Your task to perform on an android device: Open Maps and search for coffee Image 0: 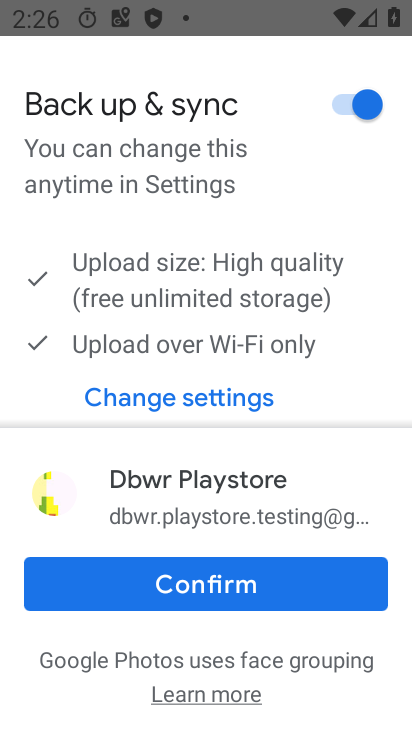
Step 0: press home button
Your task to perform on an android device: Open Maps and search for coffee Image 1: 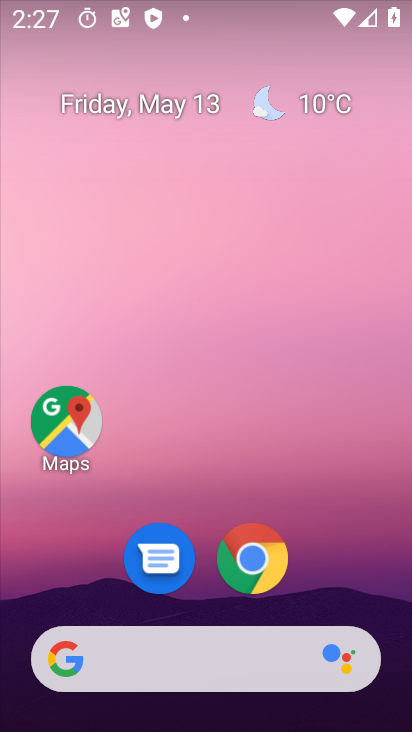
Step 1: click (38, 423)
Your task to perform on an android device: Open Maps and search for coffee Image 2: 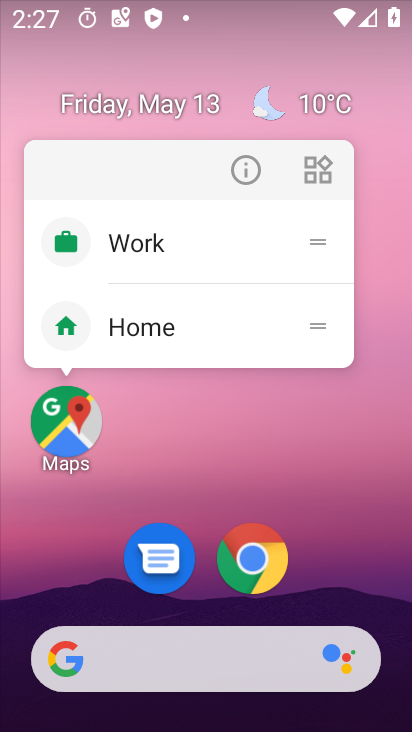
Step 2: click (85, 402)
Your task to perform on an android device: Open Maps and search for coffee Image 3: 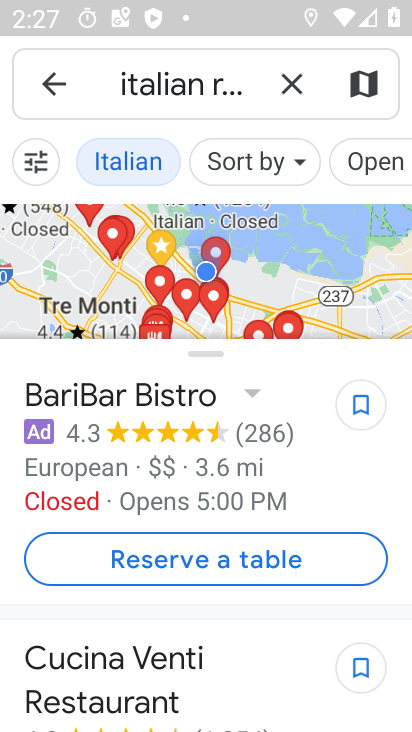
Step 3: click (289, 92)
Your task to perform on an android device: Open Maps and search for coffee Image 4: 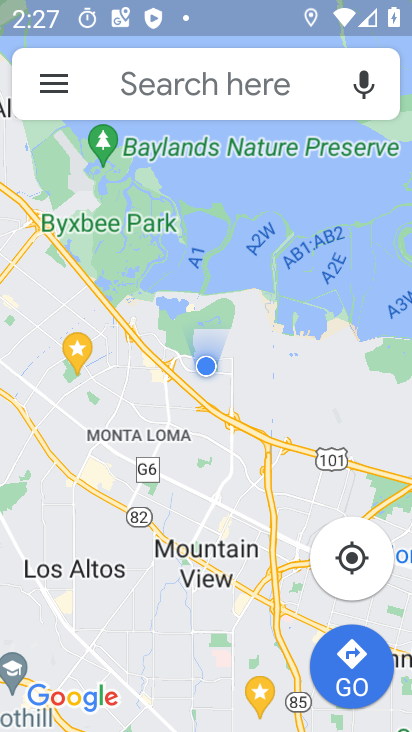
Step 4: click (208, 95)
Your task to perform on an android device: Open Maps and search for coffee Image 5: 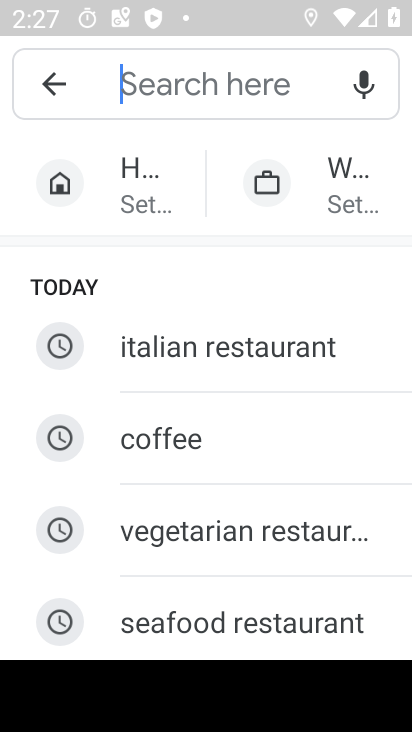
Step 5: click (260, 425)
Your task to perform on an android device: Open Maps and search for coffee Image 6: 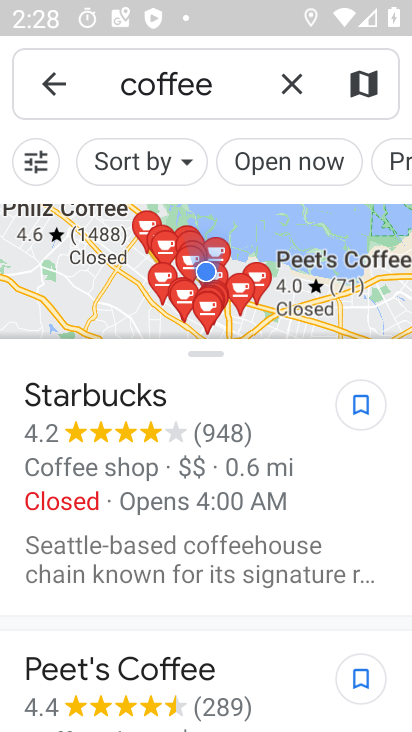
Step 6: task complete